Your task to perform on an android device: set the stopwatch Image 0: 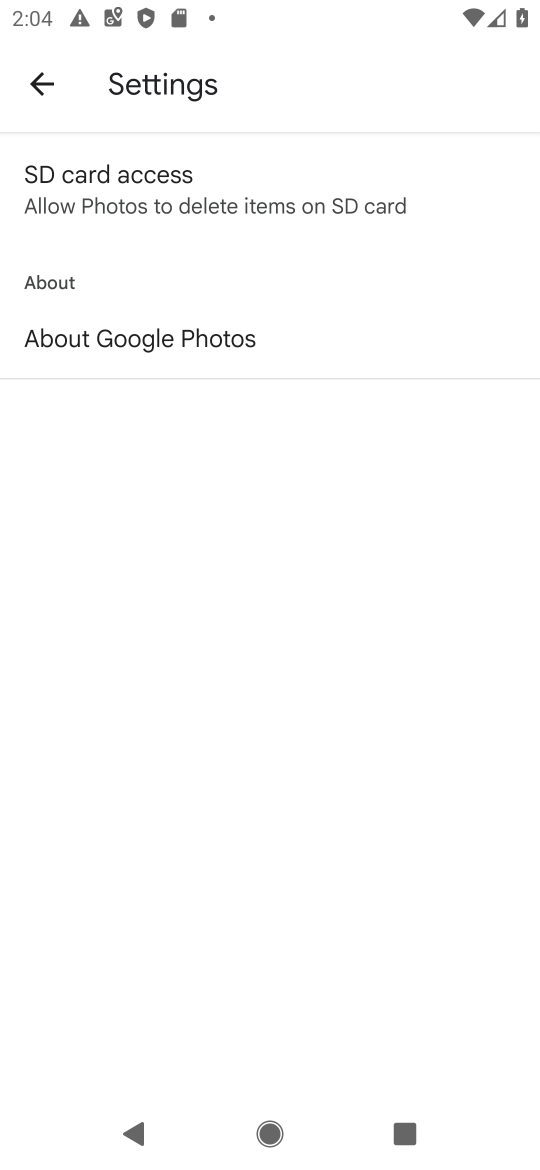
Step 0: press home button
Your task to perform on an android device: set the stopwatch Image 1: 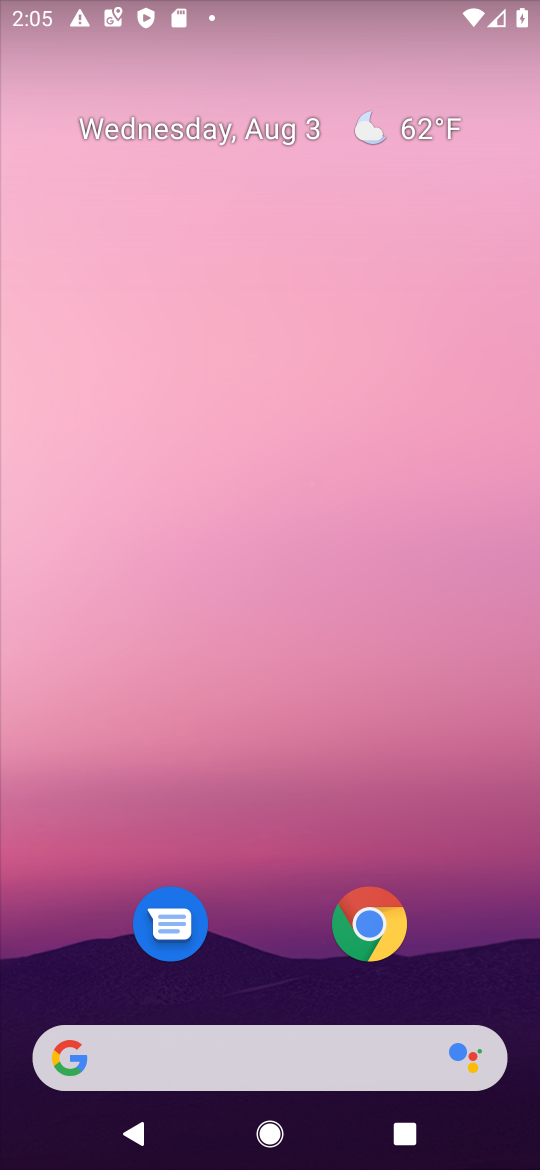
Step 1: drag from (276, 945) to (380, 190)
Your task to perform on an android device: set the stopwatch Image 2: 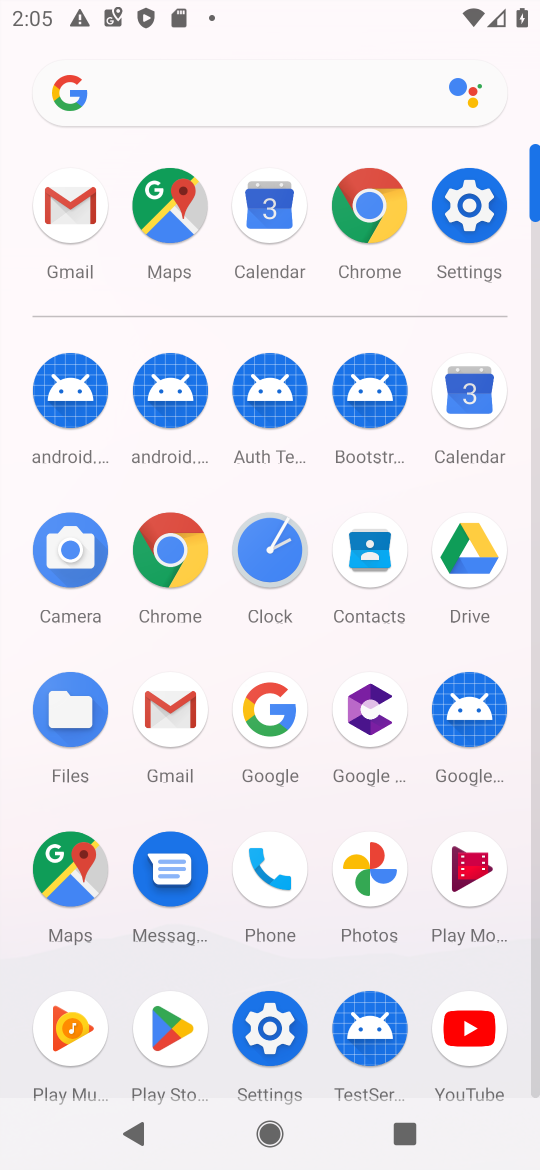
Step 2: click (263, 538)
Your task to perform on an android device: set the stopwatch Image 3: 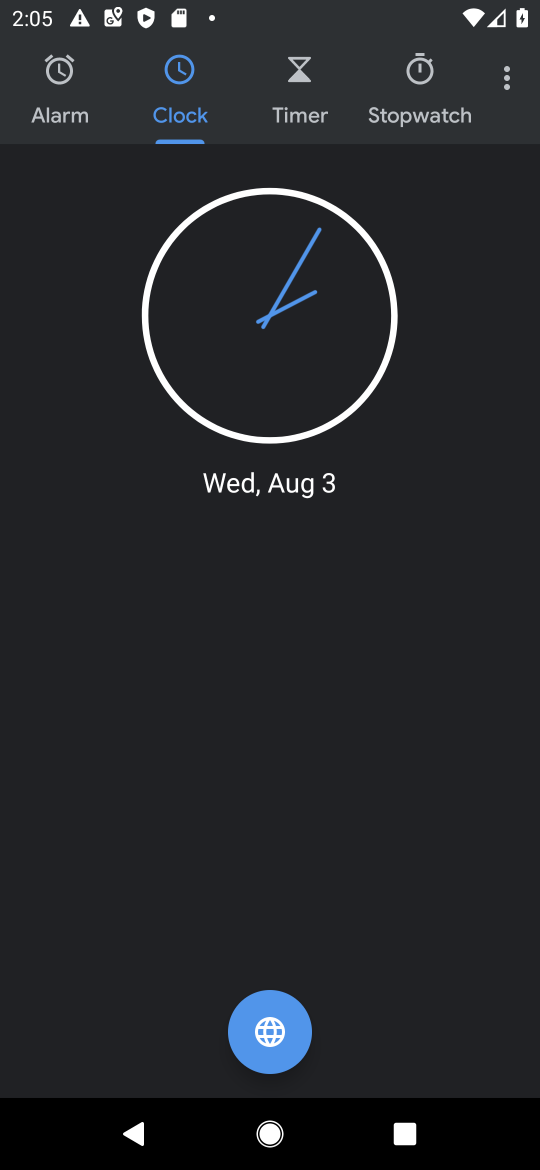
Step 3: click (413, 86)
Your task to perform on an android device: set the stopwatch Image 4: 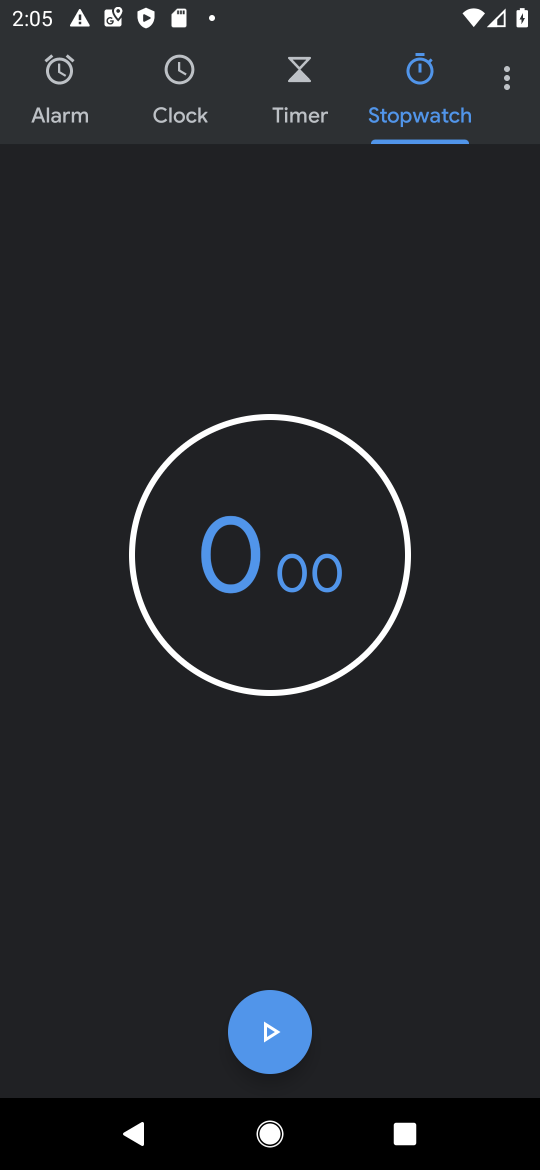
Step 4: click (263, 1030)
Your task to perform on an android device: set the stopwatch Image 5: 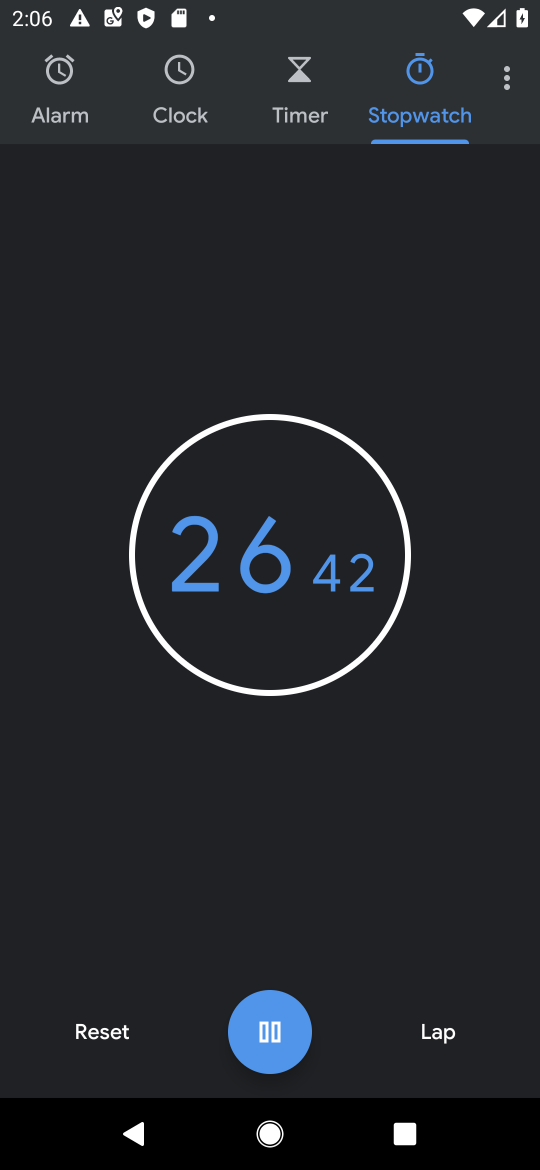
Step 5: task complete